Your task to perform on an android device: turn on location history Image 0: 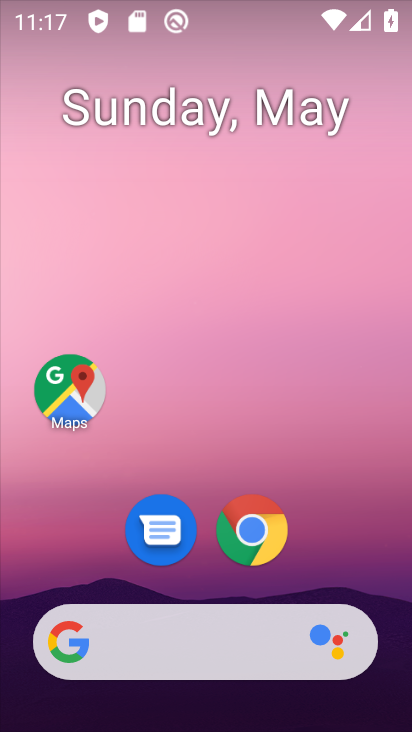
Step 0: drag from (208, 569) to (207, 48)
Your task to perform on an android device: turn on location history Image 1: 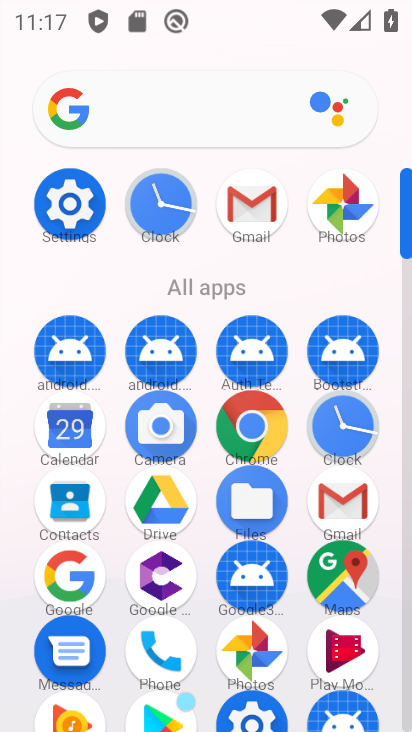
Step 1: click (91, 189)
Your task to perform on an android device: turn on location history Image 2: 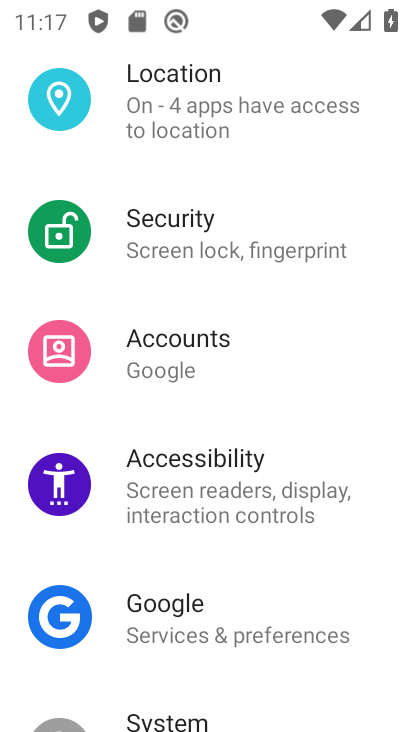
Step 2: click (173, 91)
Your task to perform on an android device: turn on location history Image 3: 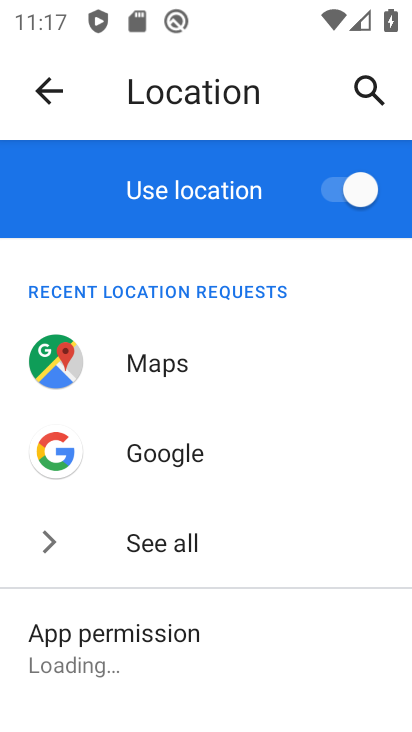
Step 3: drag from (193, 634) to (250, 105)
Your task to perform on an android device: turn on location history Image 4: 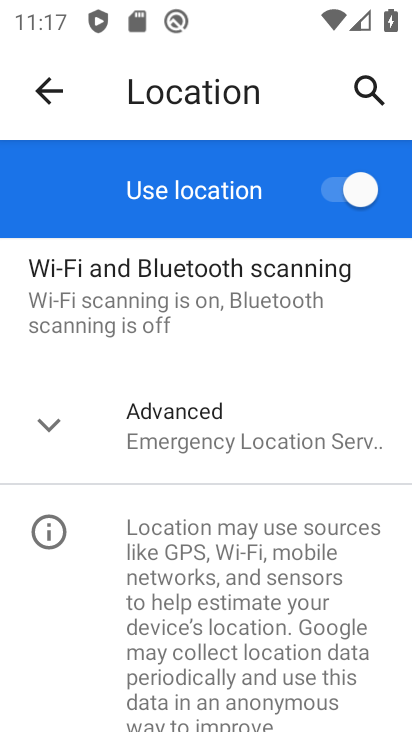
Step 4: click (203, 414)
Your task to perform on an android device: turn on location history Image 5: 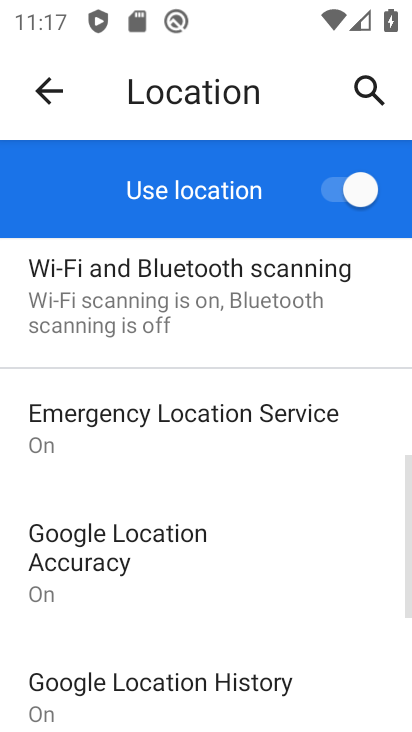
Step 5: click (182, 672)
Your task to perform on an android device: turn on location history Image 6: 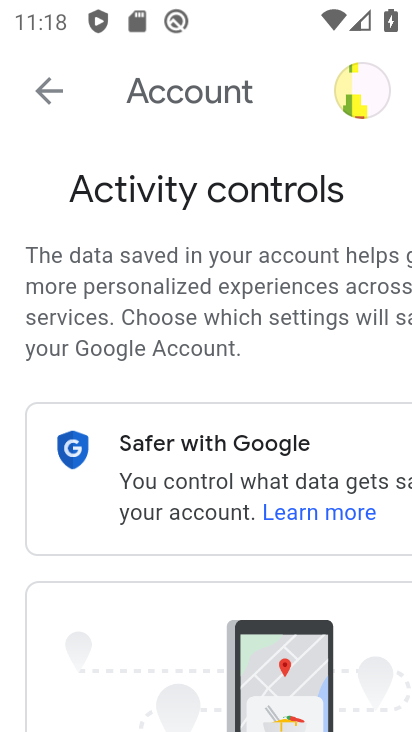
Step 6: task complete